Your task to perform on an android device: Open the stopwatch Image 0: 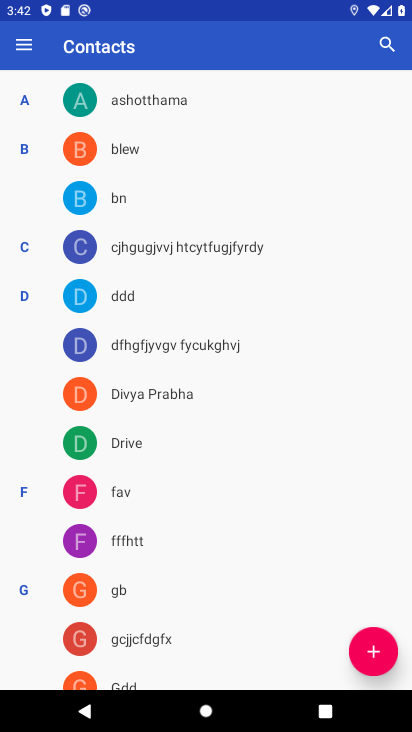
Step 0: press home button
Your task to perform on an android device: Open the stopwatch Image 1: 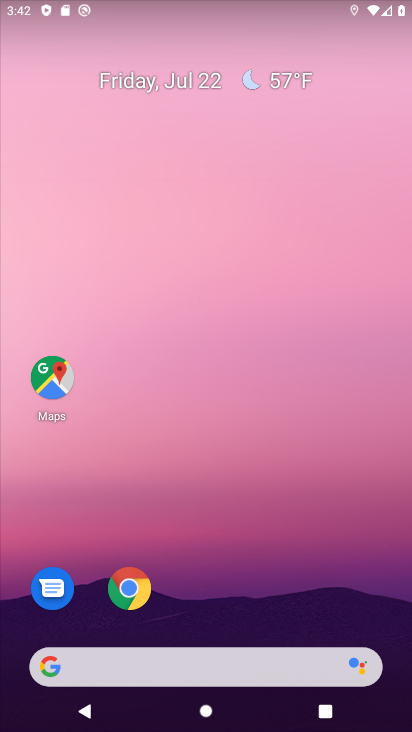
Step 1: drag from (196, 632) to (187, 115)
Your task to perform on an android device: Open the stopwatch Image 2: 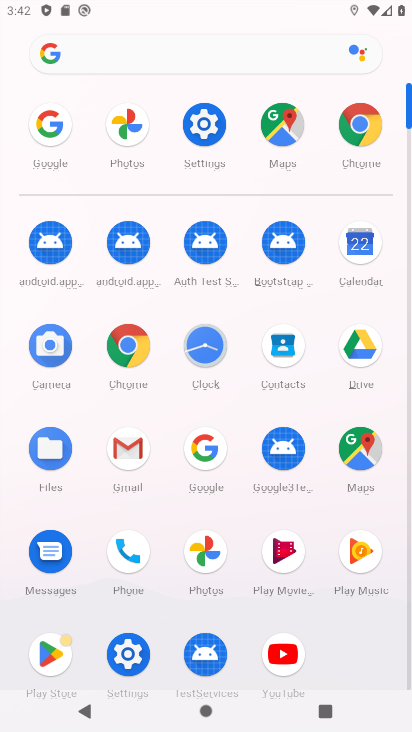
Step 2: click (204, 114)
Your task to perform on an android device: Open the stopwatch Image 3: 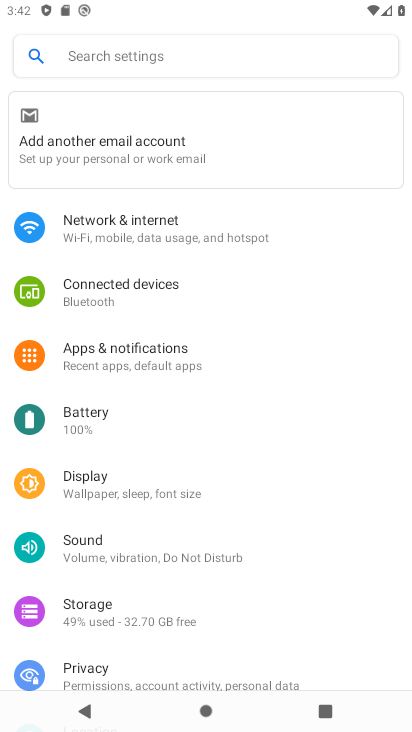
Step 3: press home button
Your task to perform on an android device: Open the stopwatch Image 4: 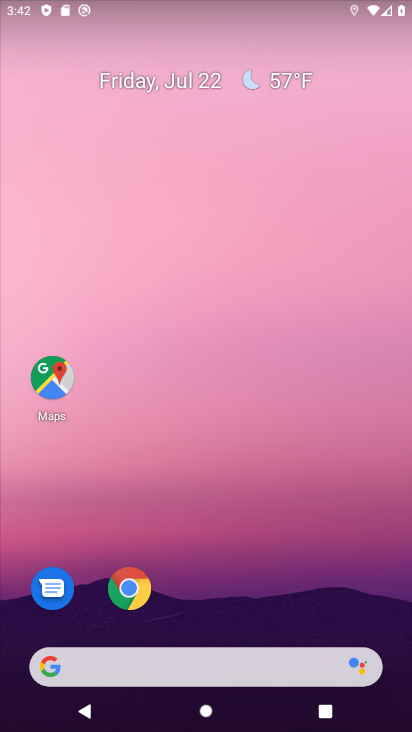
Step 4: drag from (212, 634) to (218, 107)
Your task to perform on an android device: Open the stopwatch Image 5: 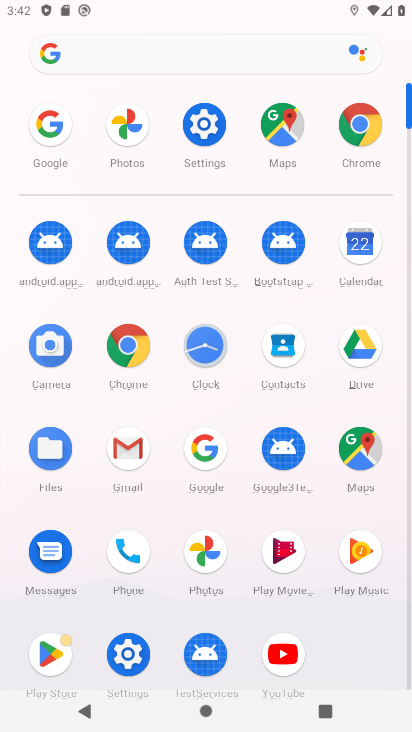
Step 5: click (209, 347)
Your task to perform on an android device: Open the stopwatch Image 6: 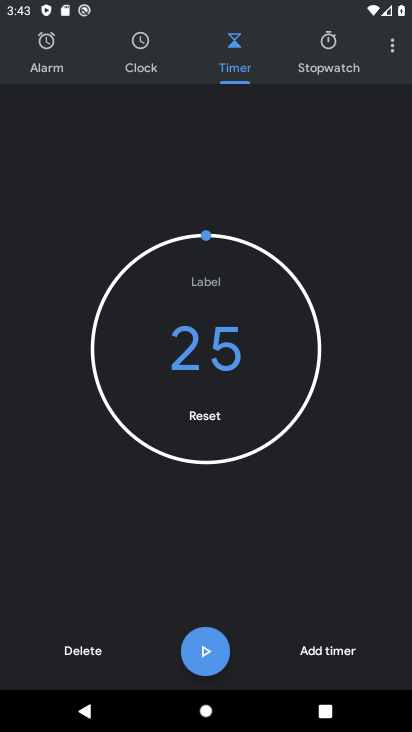
Step 6: click (312, 71)
Your task to perform on an android device: Open the stopwatch Image 7: 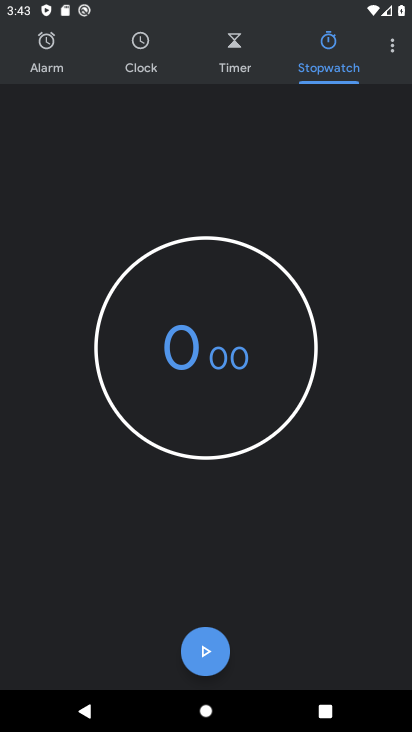
Step 7: task complete